Your task to perform on an android device: Open CNN.com Image 0: 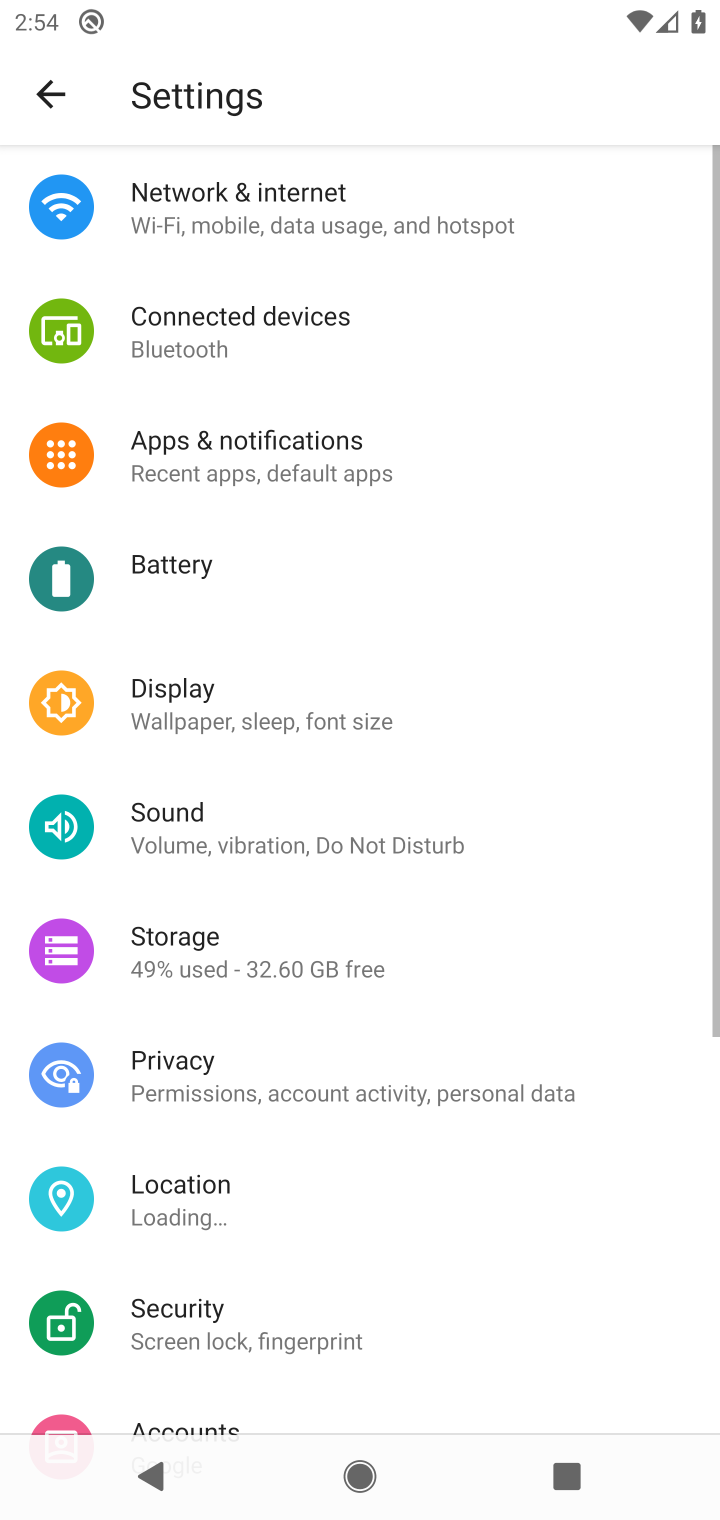
Step 0: press home button
Your task to perform on an android device: Open CNN.com Image 1: 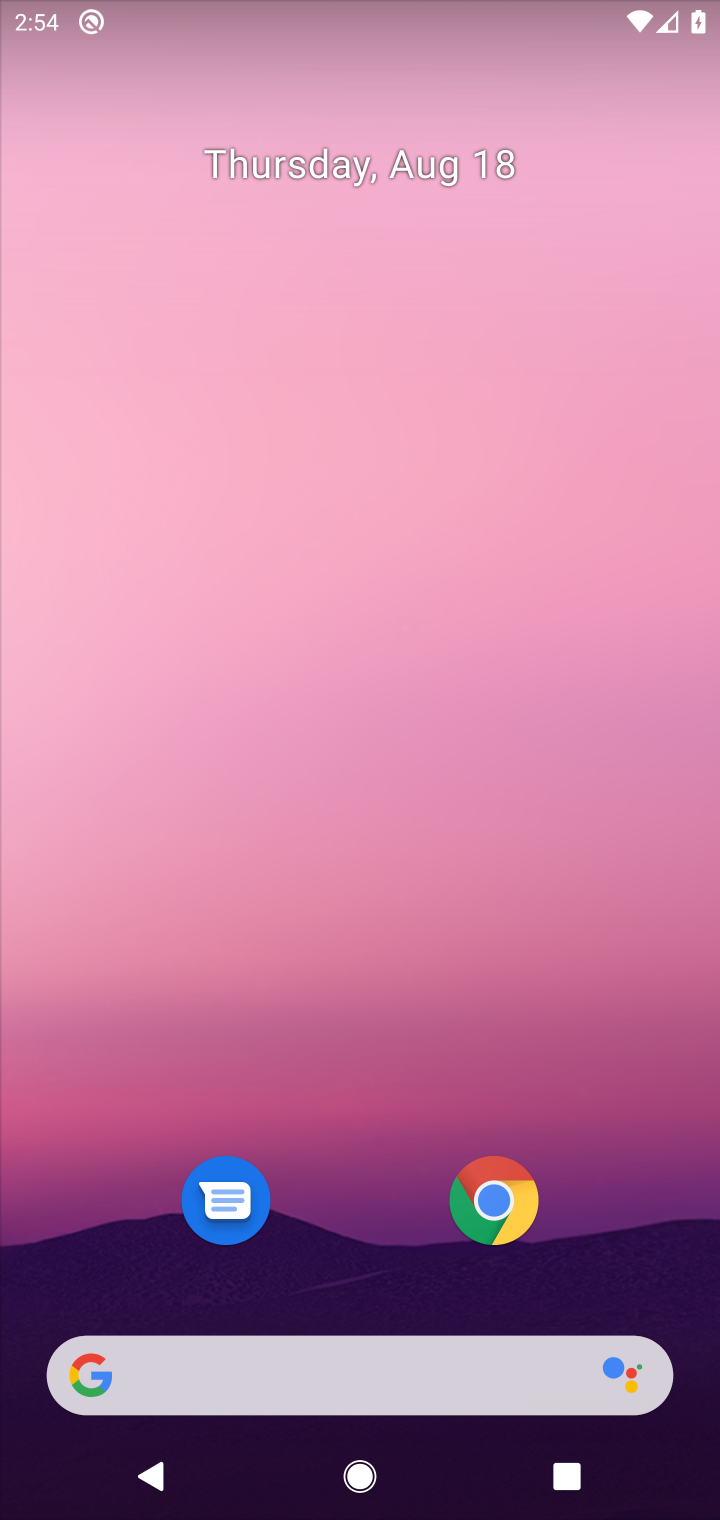
Step 1: drag from (398, 1206) to (386, 322)
Your task to perform on an android device: Open CNN.com Image 2: 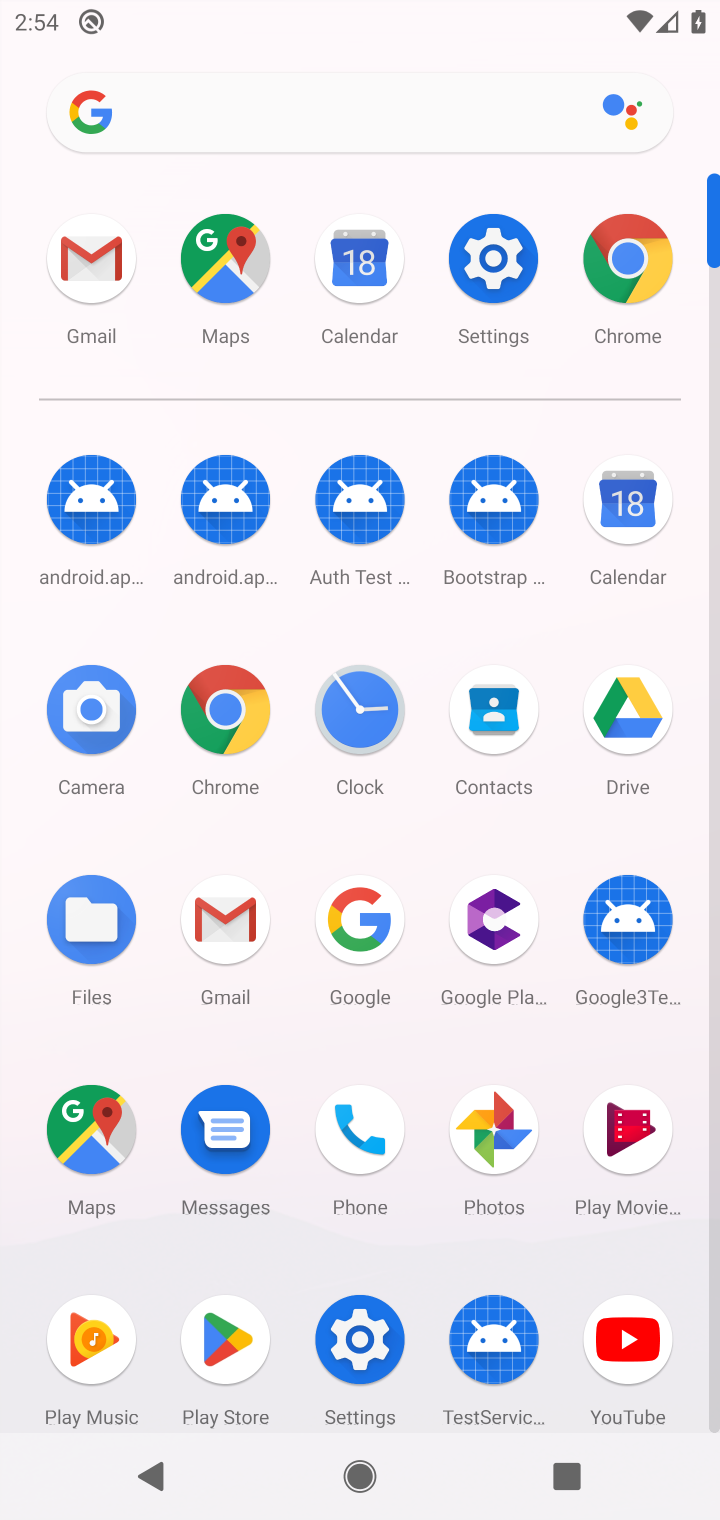
Step 2: click (231, 681)
Your task to perform on an android device: Open CNN.com Image 3: 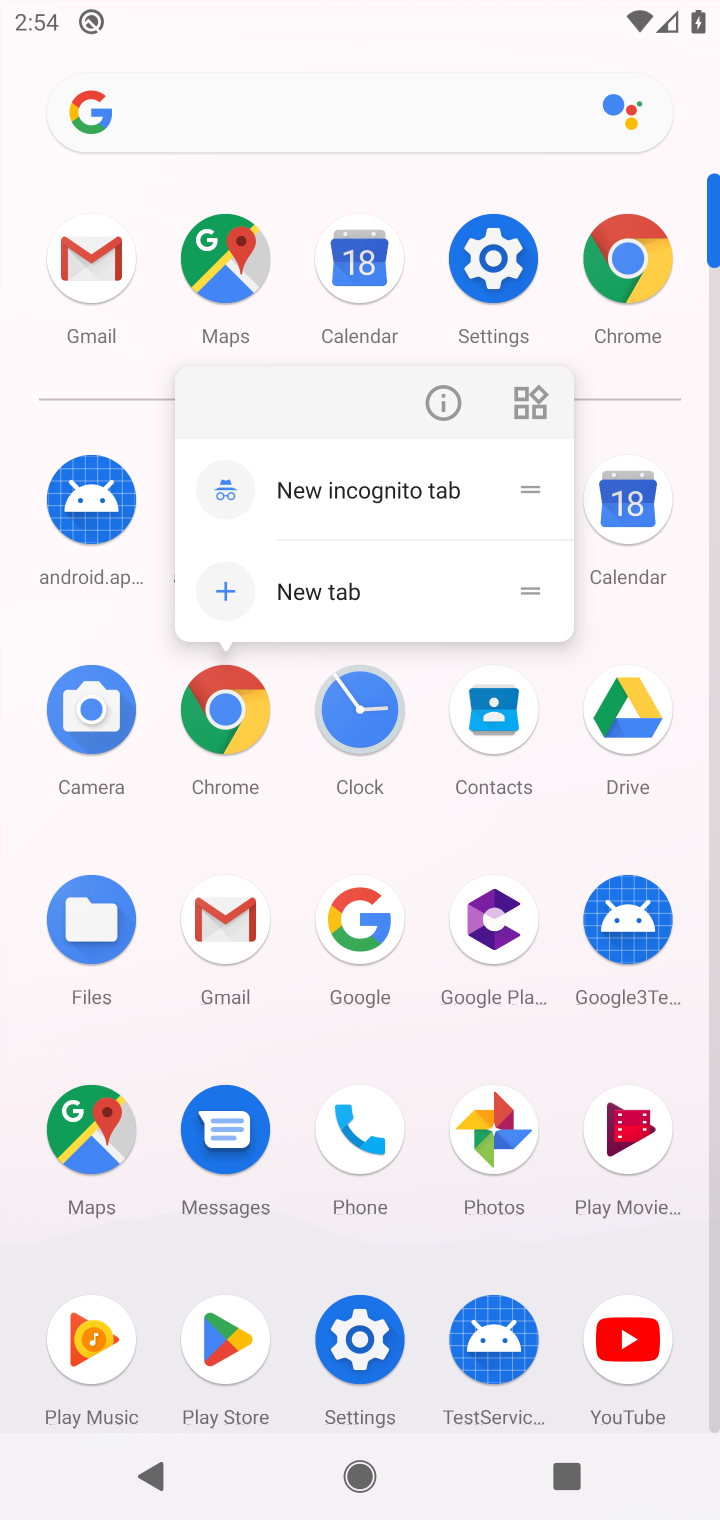
Step 3: click (232, 708)
Your task to perform on an android device: Open CNN.com Image 4: 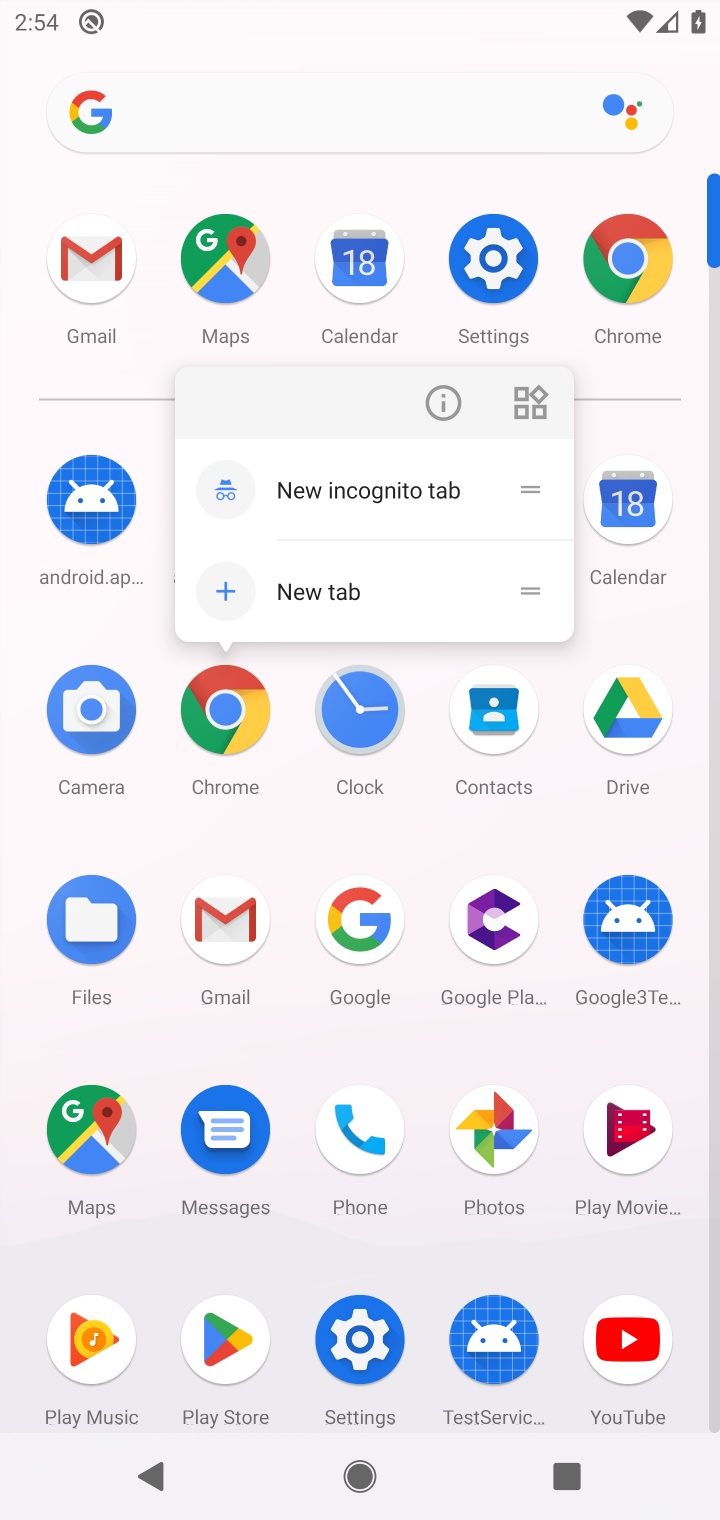
Step 4: click (232, 708)
Your task to perform on an android device: Open CNN.com Image 5: 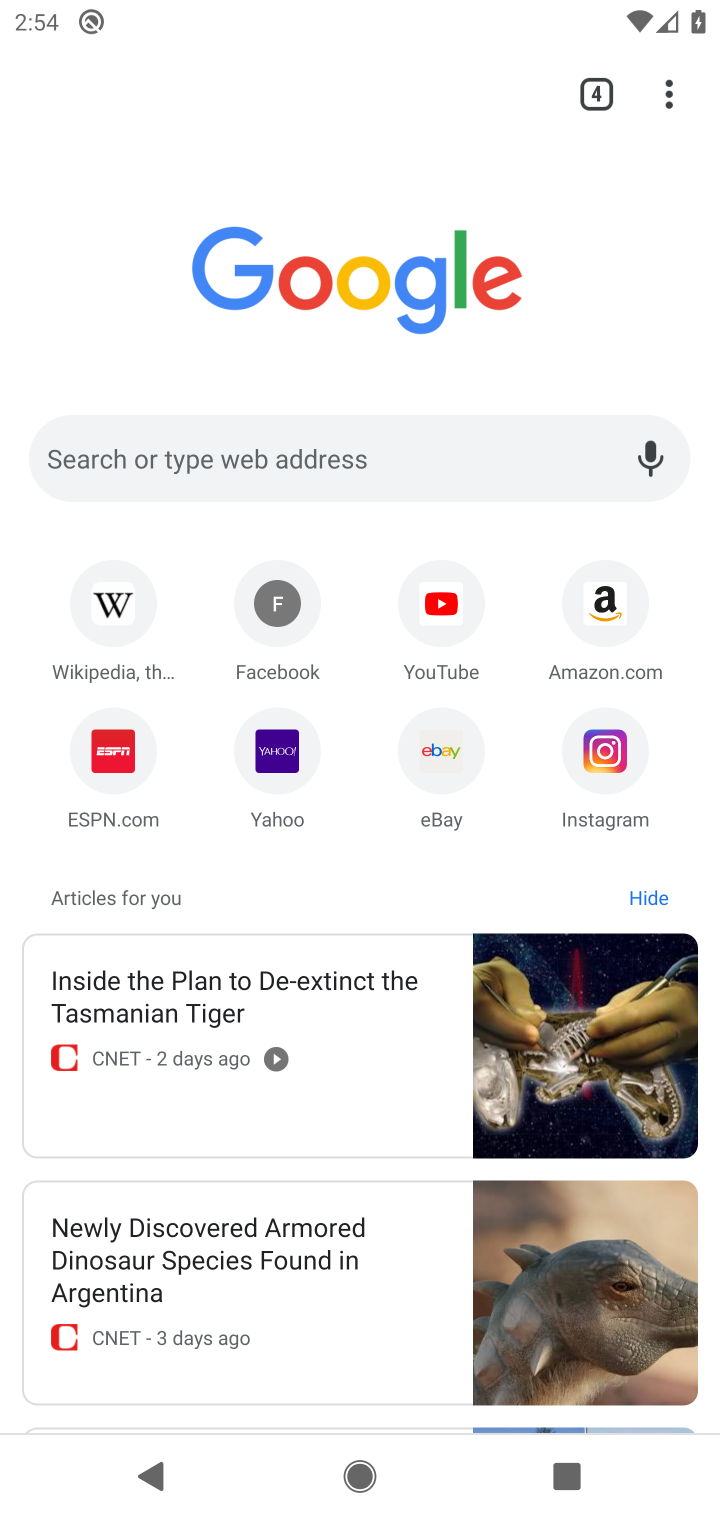
Step 5: click (263, 465)
Your task to perform on an android device: Open CNN.com Image 6: 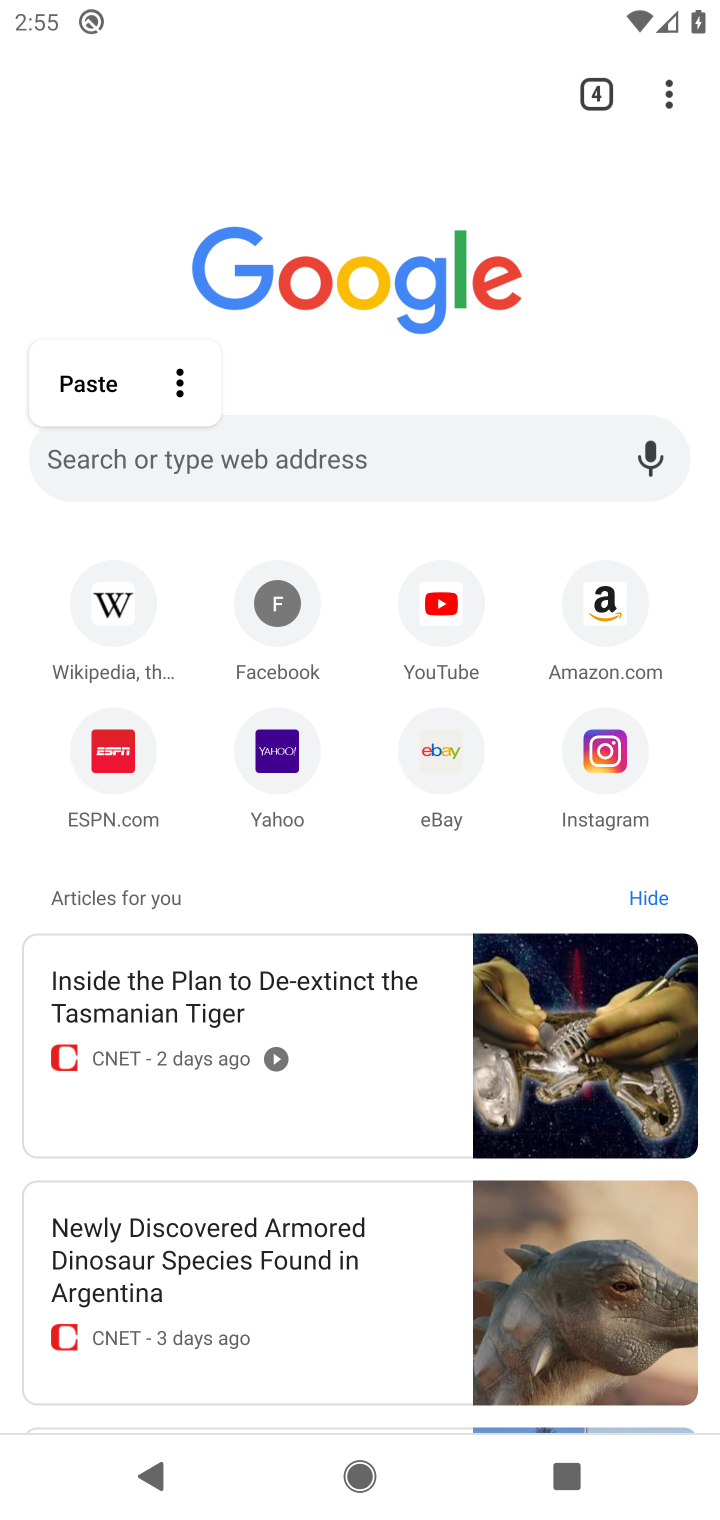
Step 6: click (230, 466)
Your task to perform on an android device: Open CNN.com Image 7: 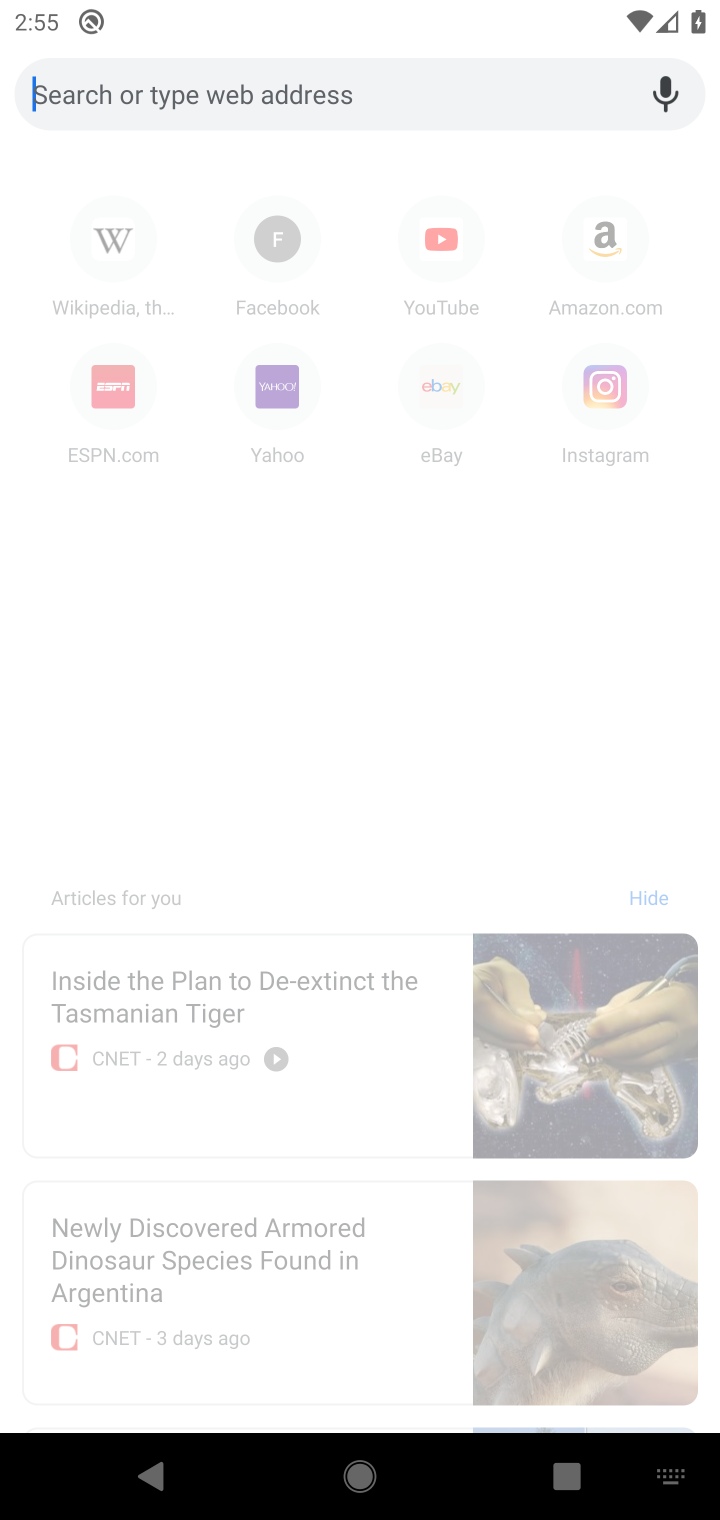
Step 7: type "CNN.com"
Your task to perform on an android device: Open CNN.com Image 8: 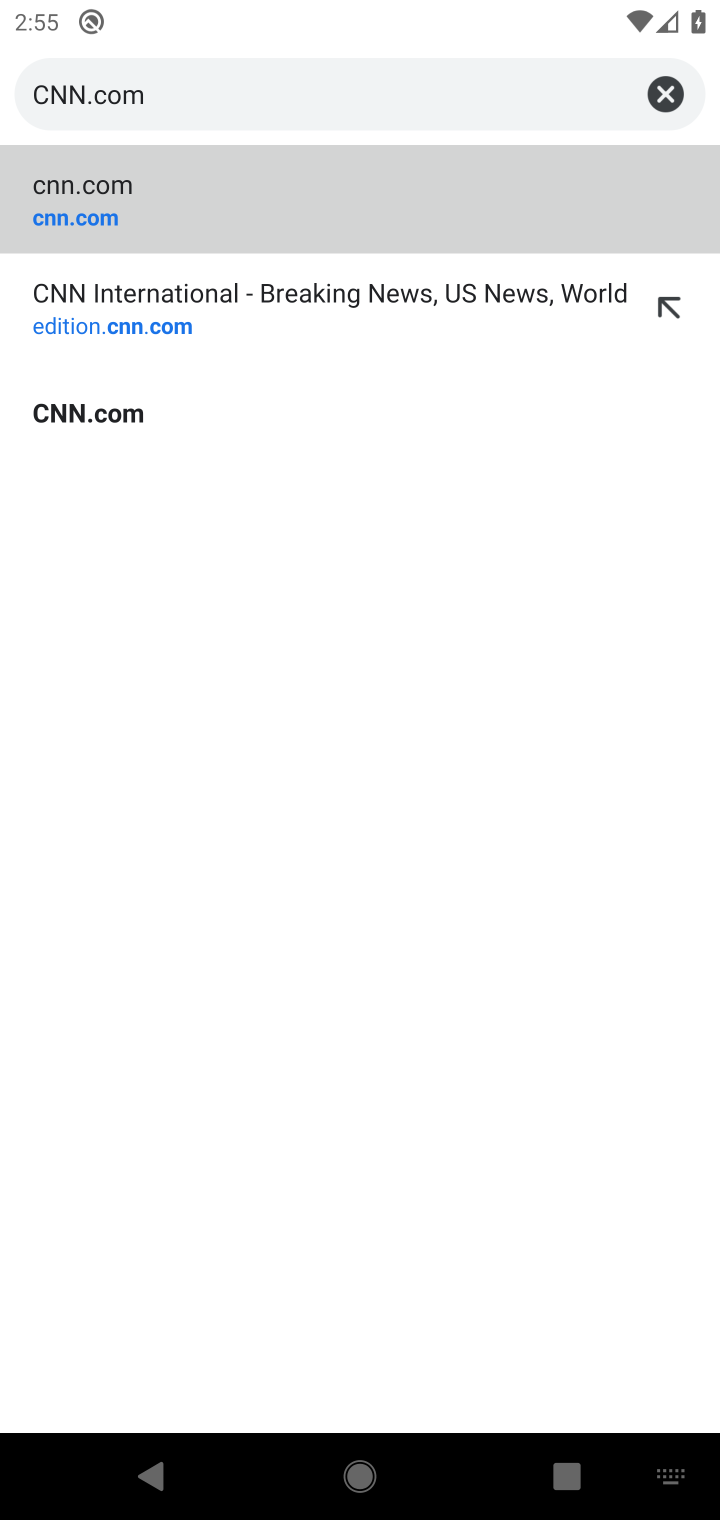
Step 8: click (98, 206)
Your task to perform on an android device: Open CNN.com Image 9: 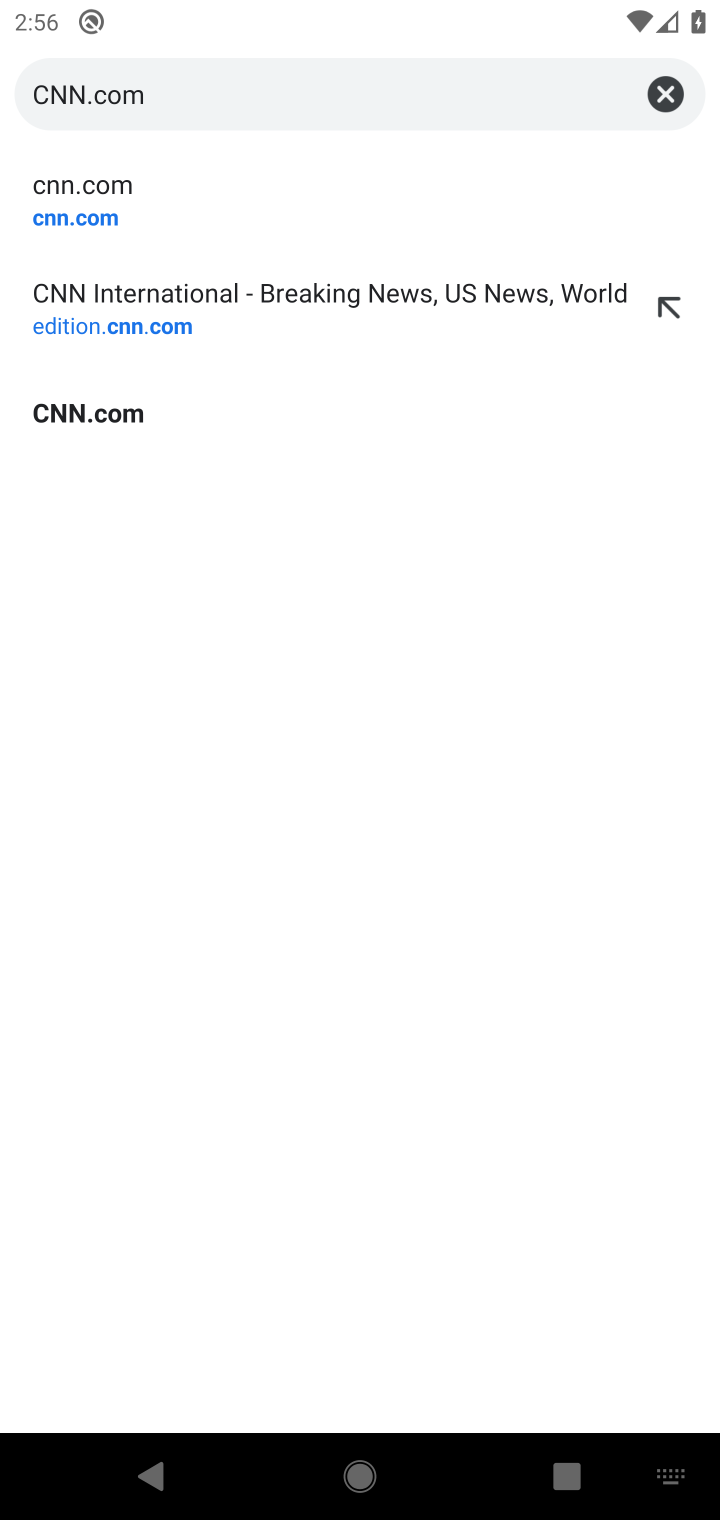
Step 9: click (74, 198)
Your task to perform on an android device: Open CNN.com Image 10: 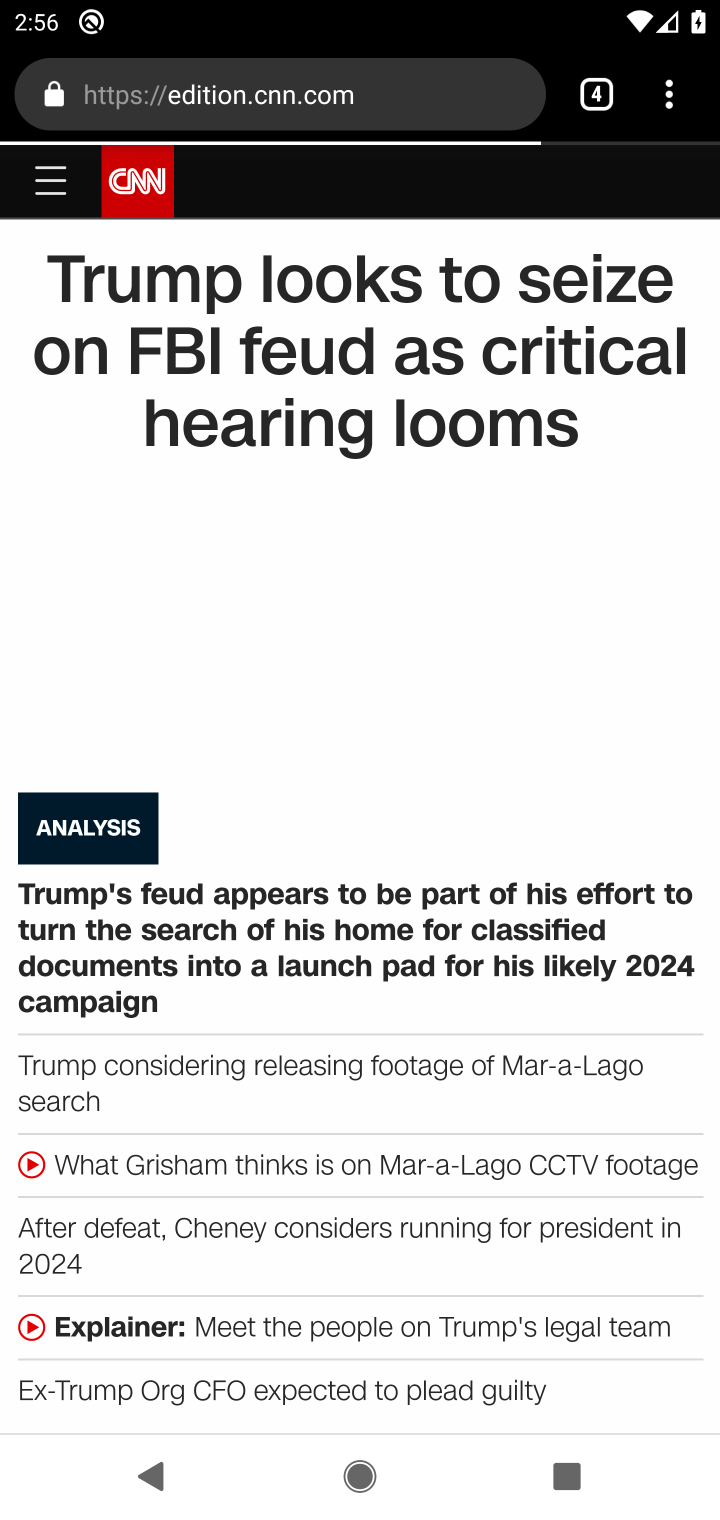
Step 10: task complete